Your task to perform on an android device: Go to internet settings Image 0: 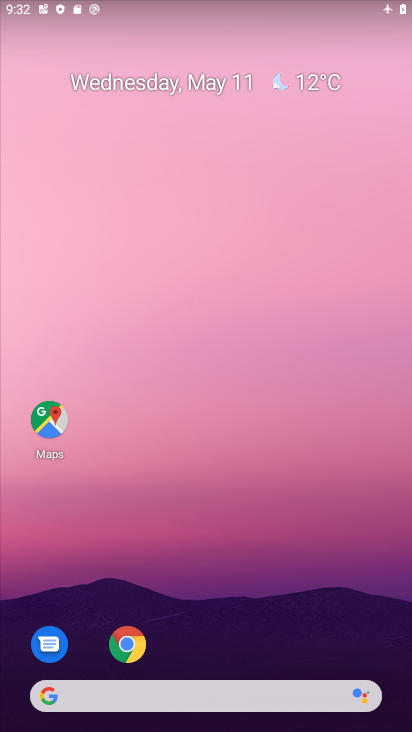
Step 0: drag from (191, 656) to (222, 225)
Your task to perform on an android device: Go to internet settings Image 1: 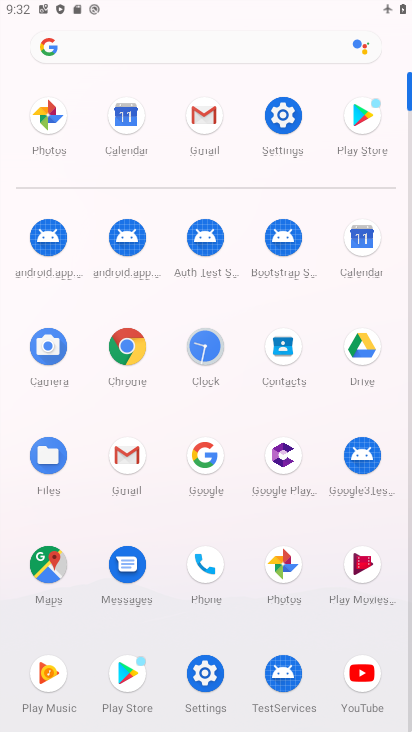
Step 1: click (287, 120)
Your task to perform on an android device: Go to internet settings Image 2: 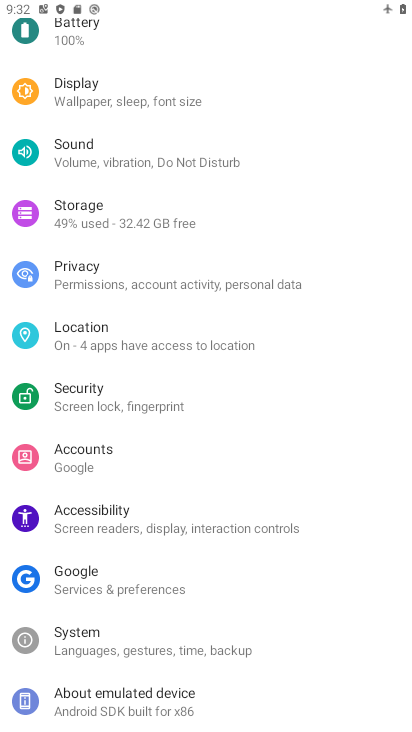
Step 2: drag from (237, 162) to (221, 610)
Your task to perform on an android device: Go to internet settings Image 3: 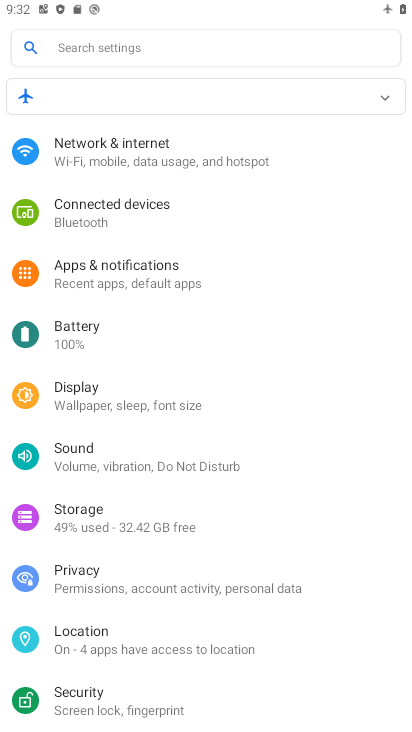
Step 3: click (227, 163)
Your task to perform on an android device: Go to internet settings Image 4: 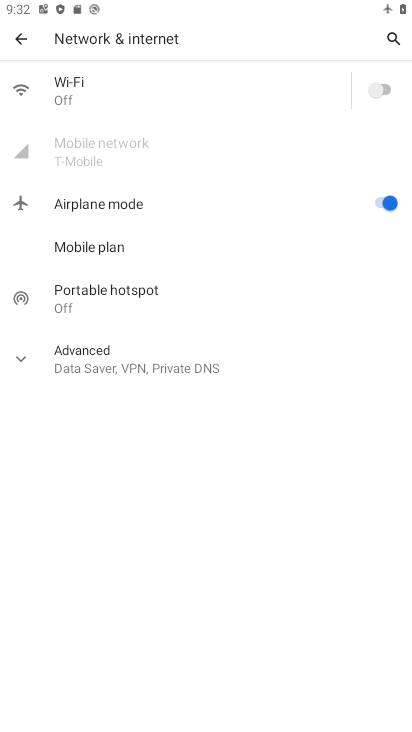
Step 4: task complete